Your task to perform on an android device: check the backup settings in the google photos Image 0: 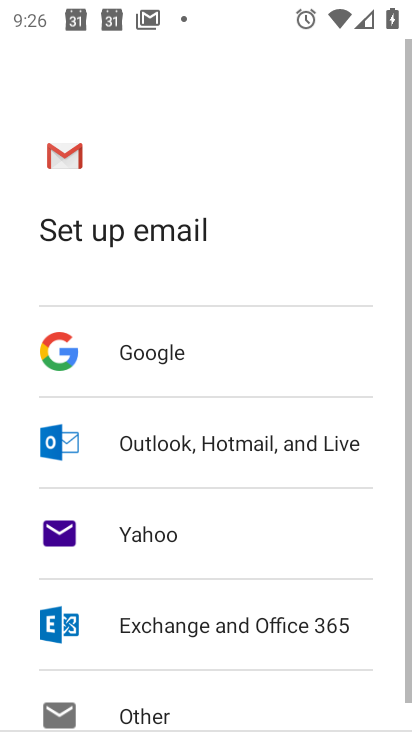
Step 0: press home button
Your task to perform on an android device: check the backup settings in the google photos Image 1: 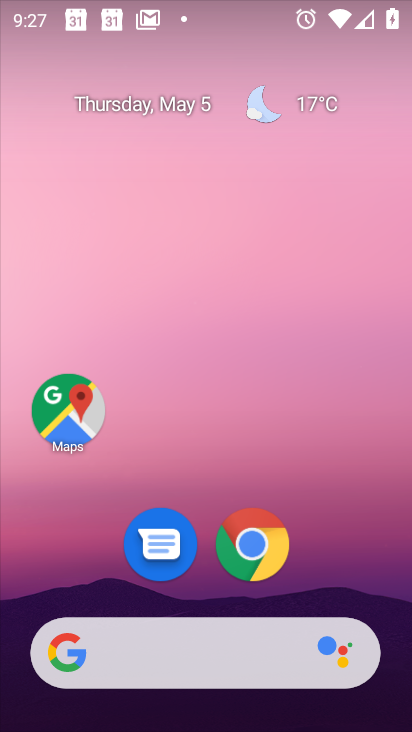
Step 1: drag from (322, 559) to (306, 165)
Your task to perform on an android device: check the backup settings in the google photos Image 2: 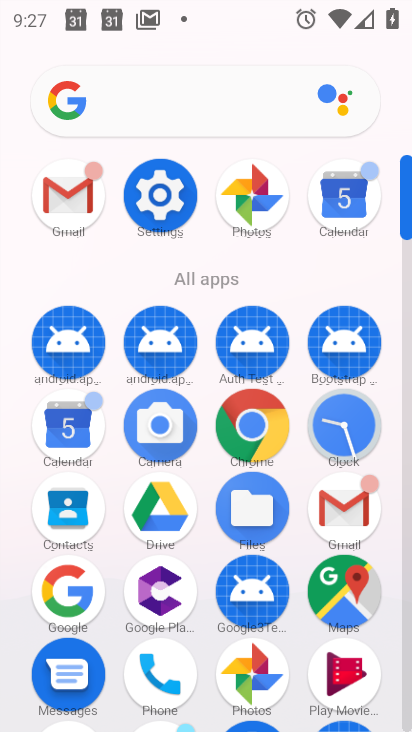
Step 2: click (241, 222)
Your task to perform on an android device: check the backup settings in the google photos Image 3: 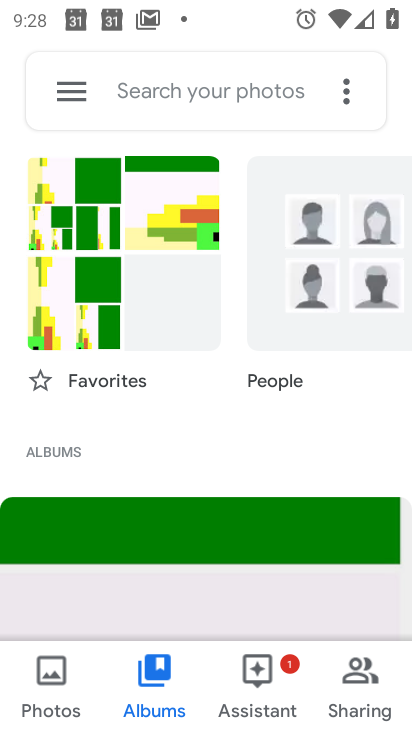
Step 3: click (84, 93)
Your task to perform on an android device: check the backup settings in the google photos Image 4: 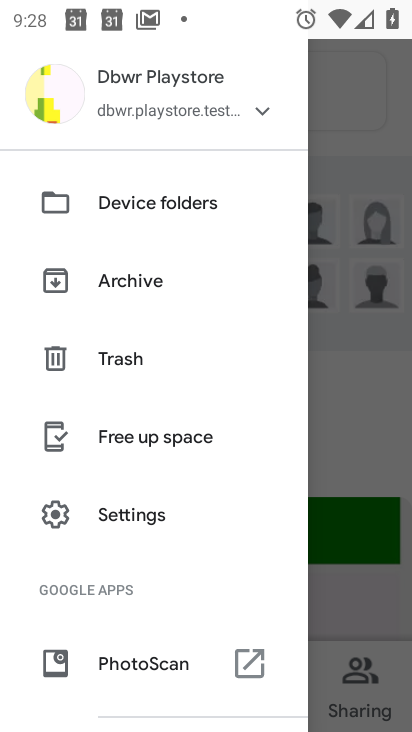
Step 4: drag from (136, 475) to (150, 331)
Your task to perform on an android device: check the backup settings in the google photos Image 5: 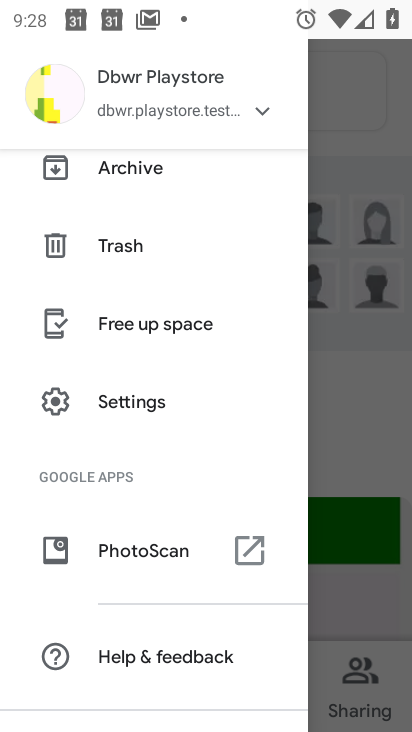
Step 5: click (138, 404)
Your task to perform on an android device: check the backup settings in the google photos Image 6: 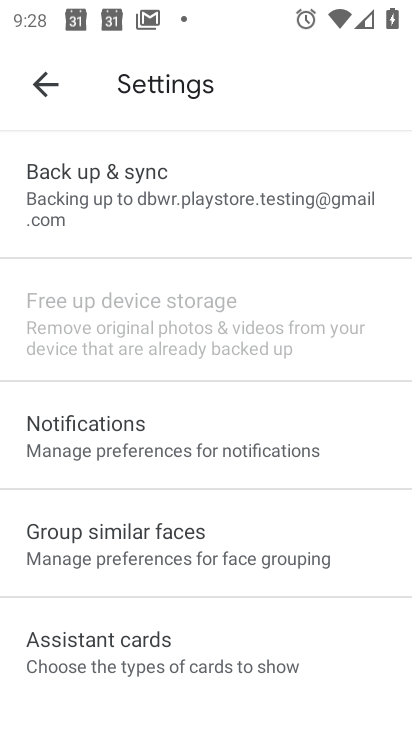
Step 6: click (112, 178)
Your task to perform on an android device: check the backup settings in the google photos Image 7: 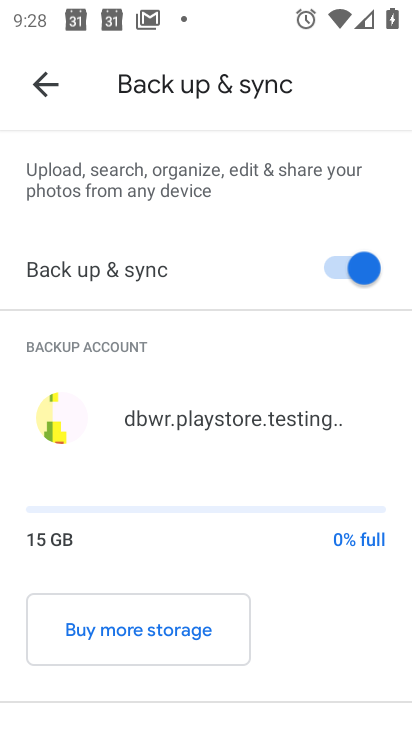
Step 7: drag from (198, 567) to (198, 158)
Your task to perform on an android device: check the backup settings in the google photos Image 8: 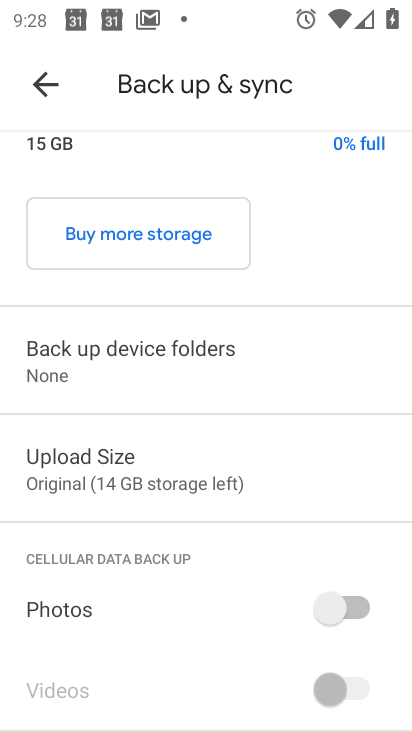
Step 8: click (233, 481)
Your task to perform on an android device: check the backup settings in the google photos Image 9: 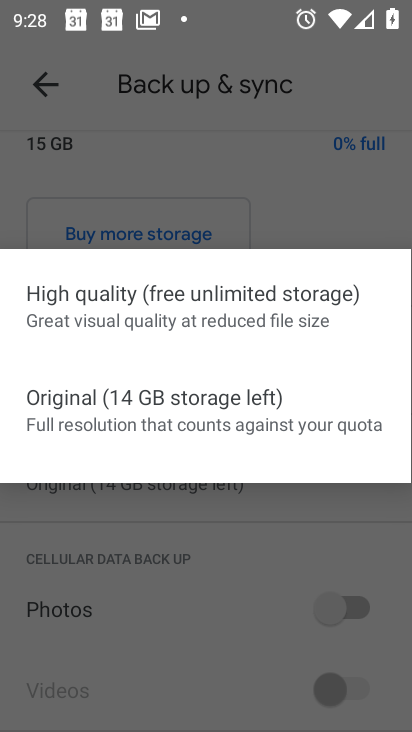
Step 9: click (125, 124)
Your task to perform on an android device: check the backup settings in the google photos Image 10: 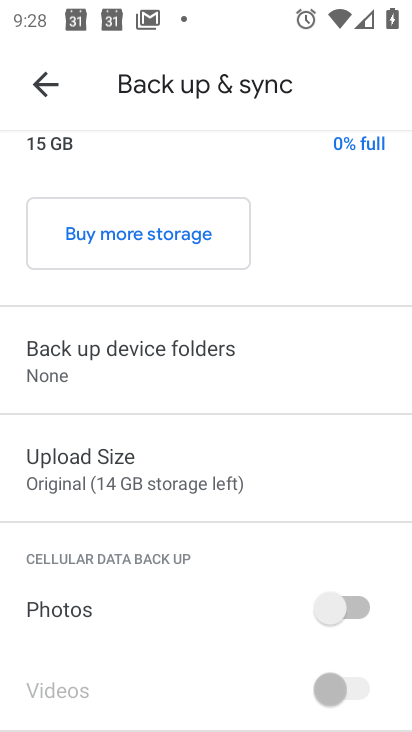
Step 10: task complete